Your task to perform on an android device: Search for "asus zenbook" on walmart.com, select the first entry, and add it to the cart. Image 0: 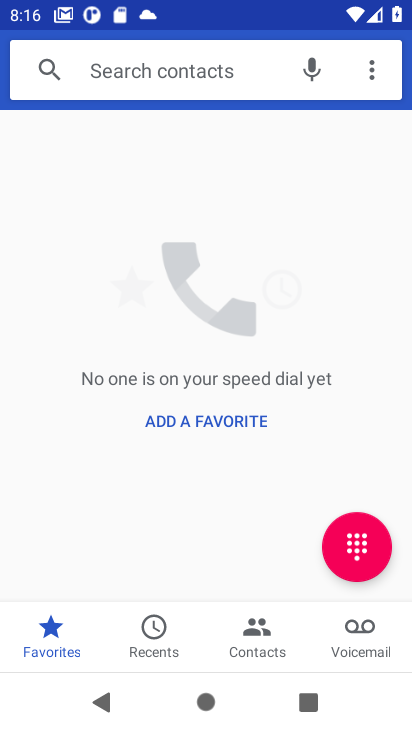
Step 0: press home button
Your task to perform on an android device: Search for "asus zenbook" on walmart.com, select the first entry, and add it to the cart. Image 1: 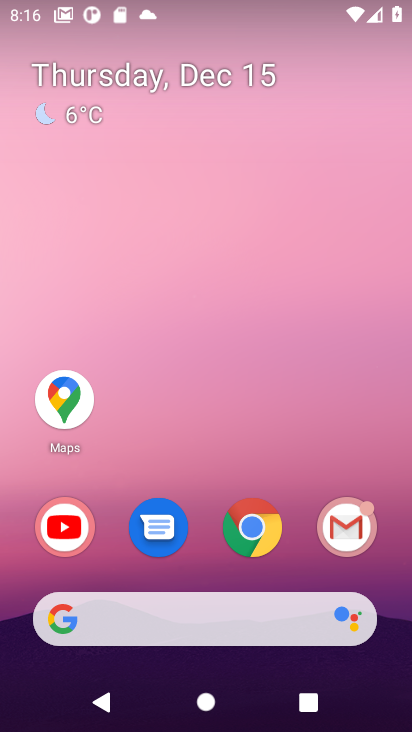
Step 1: click (277, 523)
Your task to perform on an android device: Search for "asus zenbook" on walmart.com, select the first entry, and add it to the cart. Image 2: 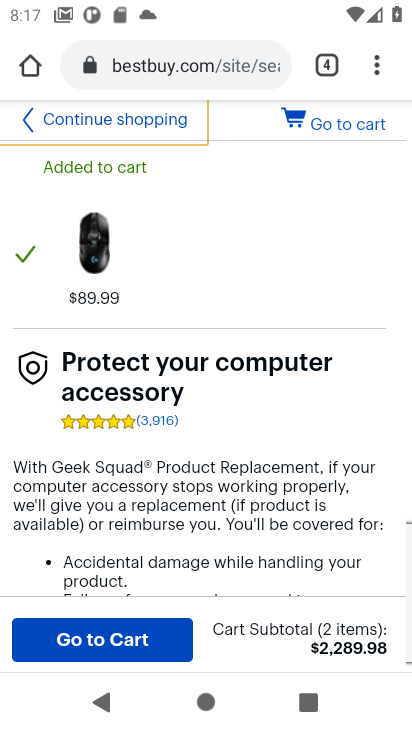
Step 2: click (185, 65)
Your task to perform on an android device: Search for "asus zenbook" on walmart.com, select the first entry, and add it to the cart. Image 3: 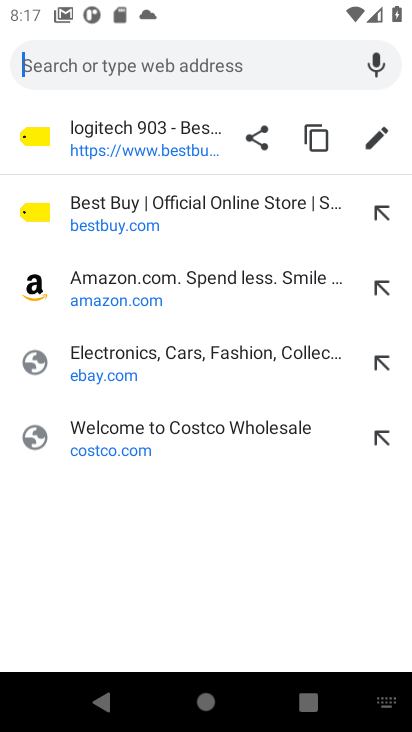
Step 3: type "walmart"
Your task to perform on an android device: Search for "asus zenbook" on walmart.com, select the first entry, and add it to the cart. Image 4: 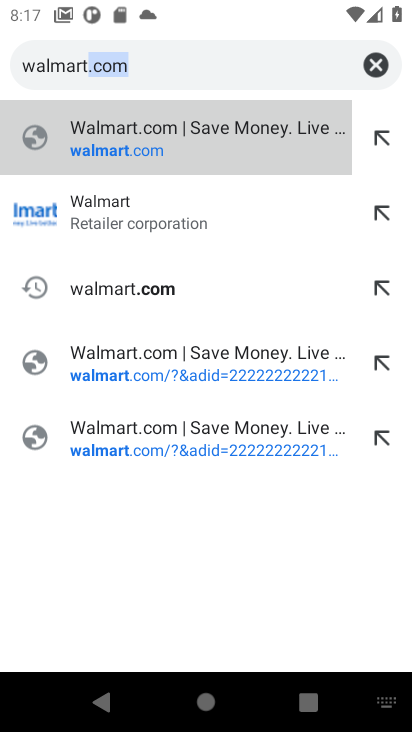
Step 4: click (115, 154)
Your task to perform on an android device: Search for "asus zenbook" on walmart.com, select the first entry, and add it to the cart. Image 5: 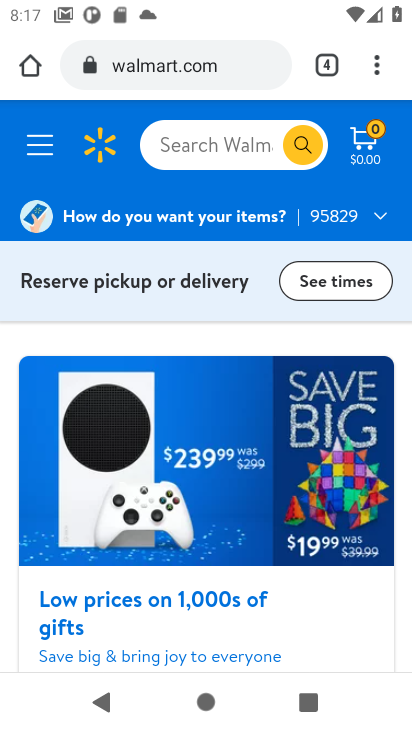
Step 5: click (187, 135)
Your task to perform on an android device: Search for "asus zenbook" on walmart.com, select the first entry, and add it to the cart. Image 6: 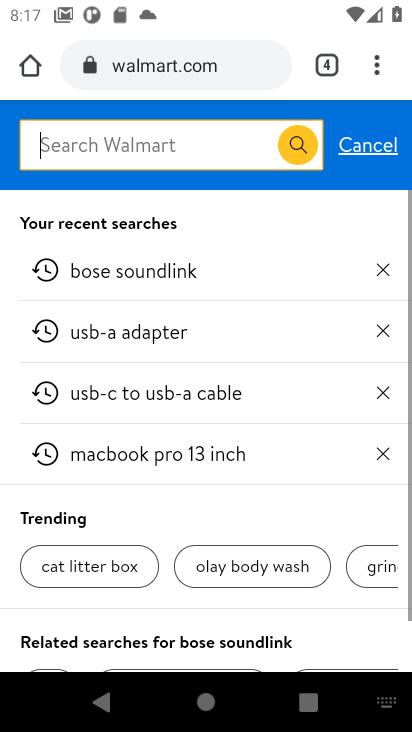
Step 6: type "asus zenbook"
Your task to perform on an android device: Search for "asus zenbook" on walmart.com, select the first entry, and add it to the cart. Image 7: 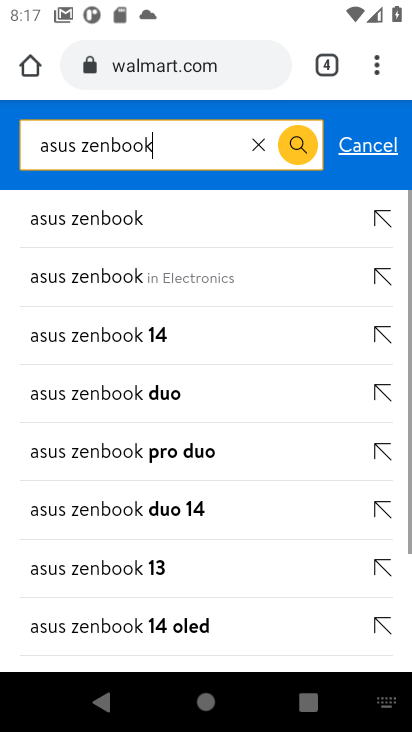
Step 7: click (153, 220)
Your task to perform on an android device: Search for "asus zenbook" on walmart.com, select the first entry, and add it to the cart. Image 8: 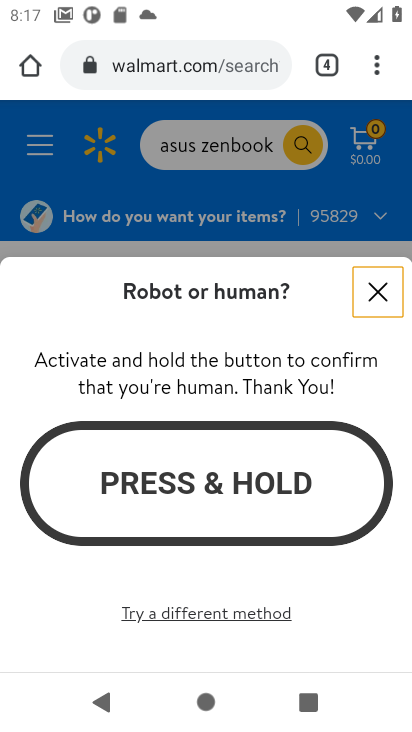
Step 8: click (201, 465)
Your task to perform on an android device: Search for "asus zenbook" on walmart.com, select the first entry, and add it to the cart. Image 9: 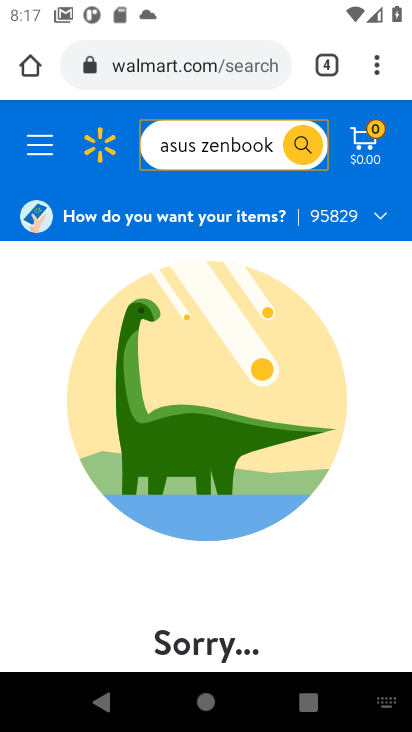
Step 9: click (301, 143)
Your task to perform on an android device: Search for "asus zenbook" on walmart.com, select the first entry, and add it to the cart. Image 10: 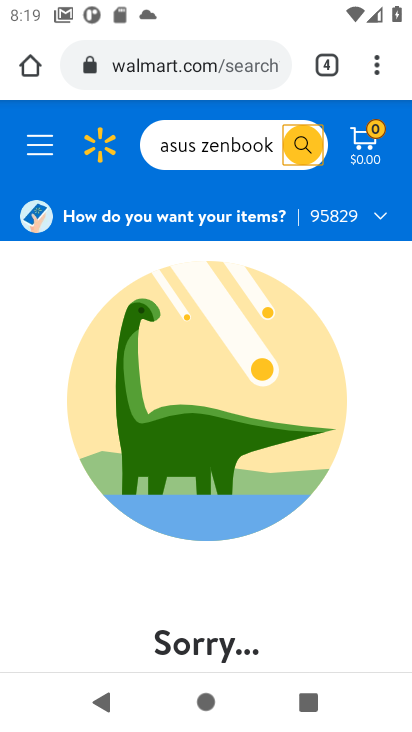
Step 10: task complete